Your task to perform on an android device: What's the weather going to be this weekend? Image 0: 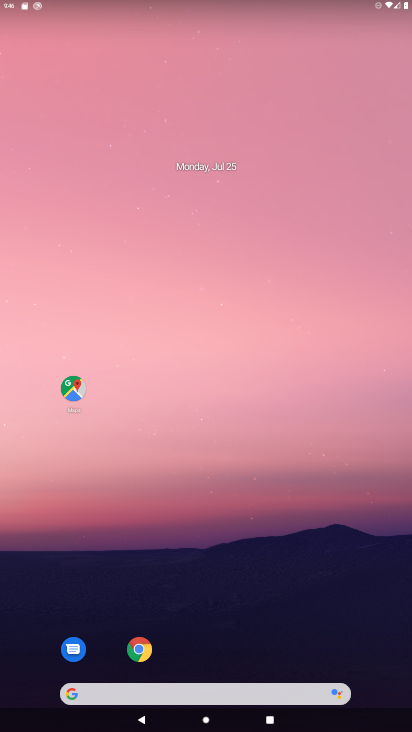
Step 0: drag from (206, 662) to (242, 37)
Your task to perform on an android device: What's the weather going to be this weekend? Image 1: 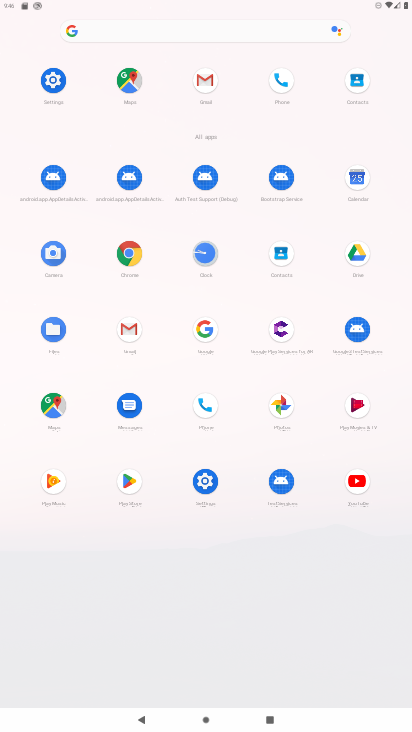
Step 1: click (144, 31)
Your task to perform on an android device: What's the weather going to be this weekend? Image 2: 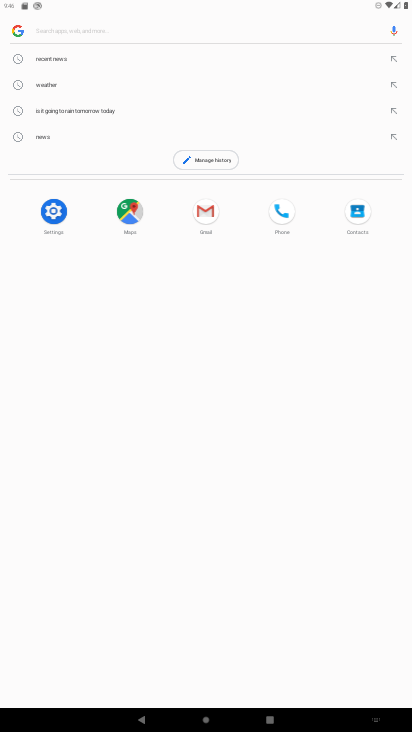
Step 2: click (59, 90)
Your task to perform on an android device: What's the weather going to be this weekend? Image 3: 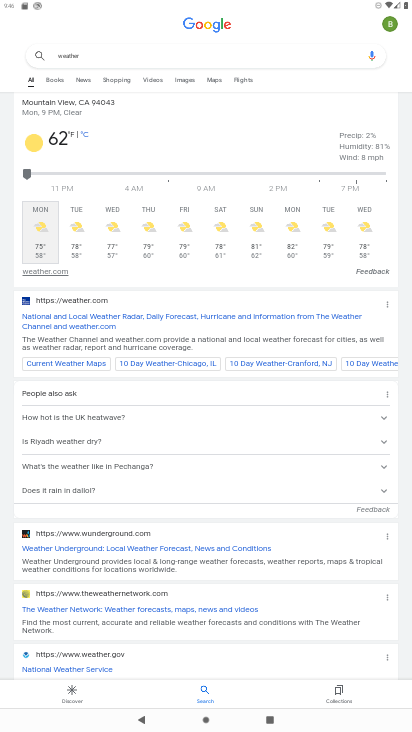
Step 3: click (215, 240)
Your task to perform on an android device: What's the weather going to be this weekend? Image 4: 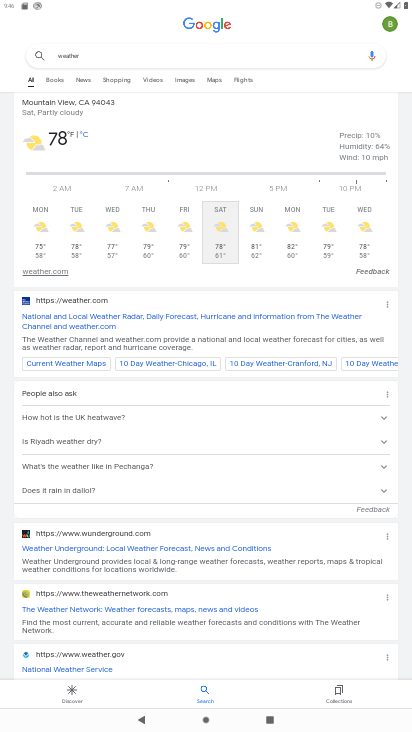
Step 4: task complete